Your task to perform on an android device: open app "Airtel Thanks" Image 0: 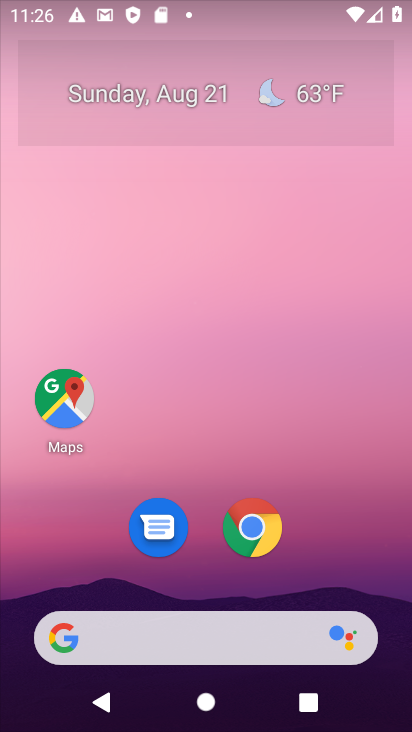
Step 0: drag from (150, 580) to (283, 2)
Your task to perform on an android device: open app "Airtel Thanks" Image 1: 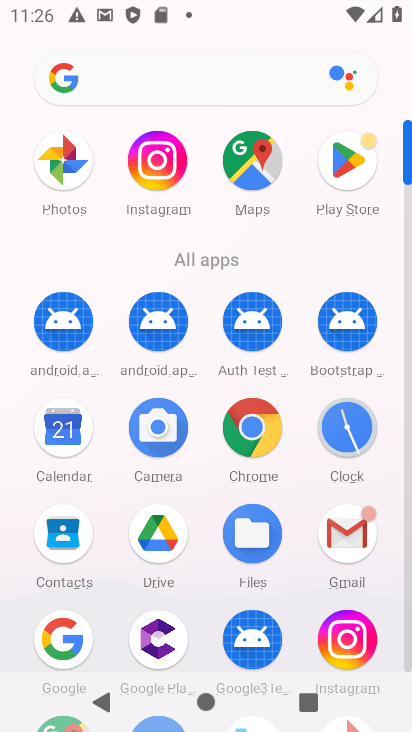
Step 1: click (348, 176)
Your task to perform on an android device: open app "Airtel Thanks" Image 2: 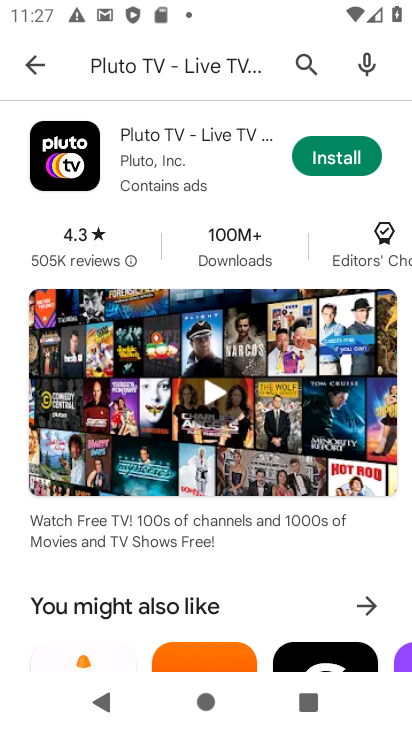
Step 2: press back button
Your task to perform on an android device: open app "Airtel Thanks" Image 3: 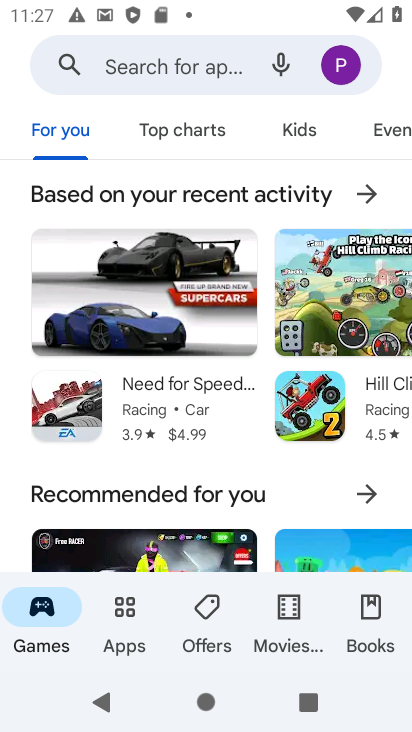
Step 3: click (185, 73)
Your task to perform on an android device: open app "Airtel Thanks" Image 4: 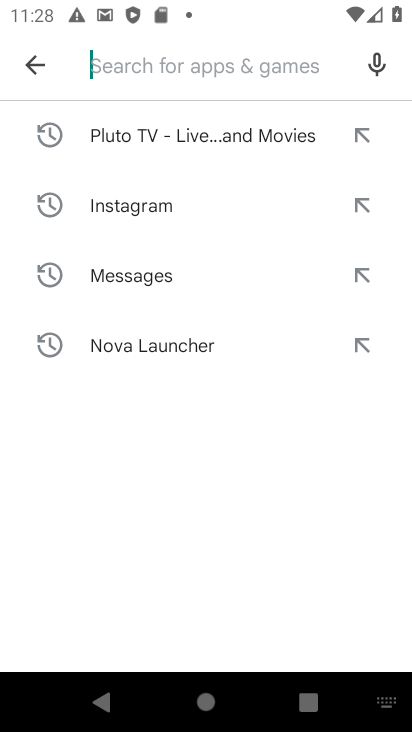
Step 4: type "Airtel Thanks"
Your task to perform on an android device: open app "Airtel Thanks" Image 5: 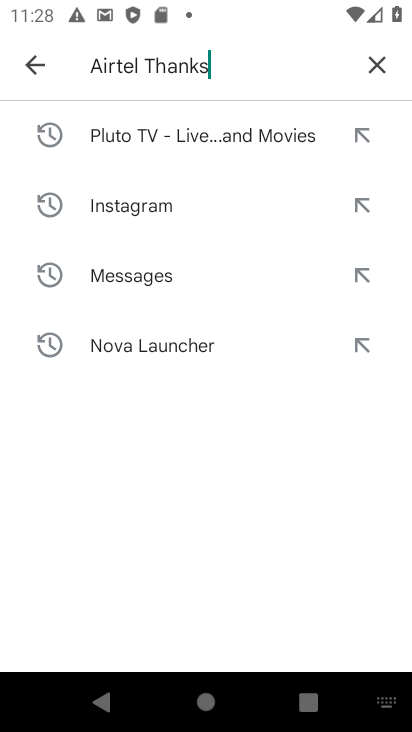
Step 5: press enter
Your task to perform on an android device: open app "Airtel Thanks" Image 6: 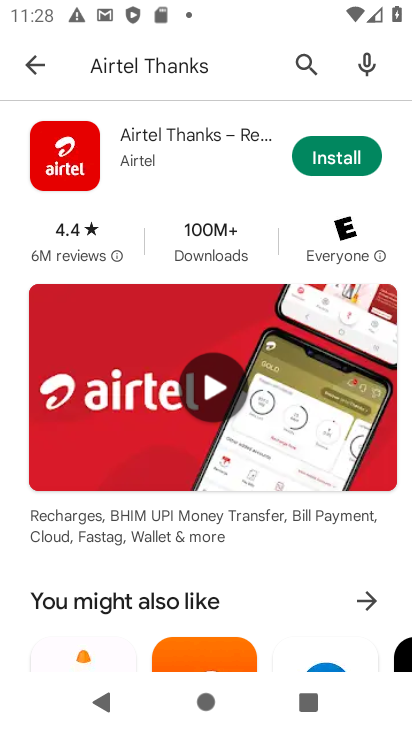
Step 6: task complete